Your task to perform on an android device: toggle javascript in the chrome app Image 0: 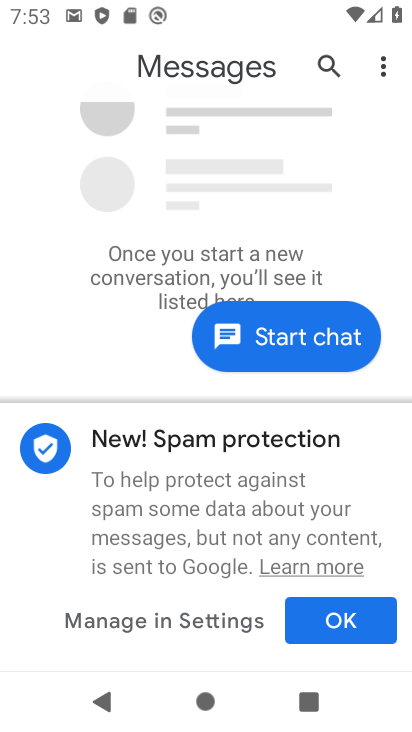
Step 0: press home button
Your task to perform on an android device: toggle javascript in the chrome app Image 1: 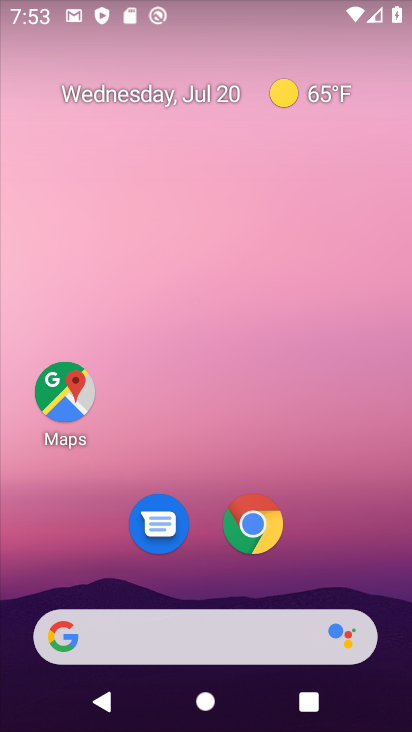
Step 1: click (242, 549)
Your task to perform on an android device: toggle javascript in the chrome app Image 2: 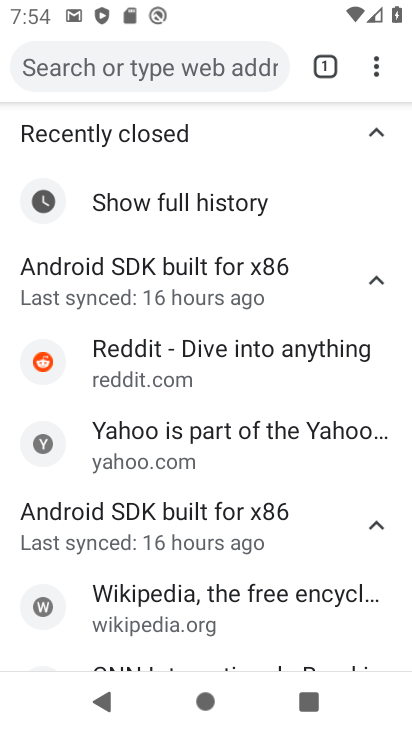
Step 2: click (374, 67)
Your task to perform on an android device: toggle javascript in the chrome app Image 3: 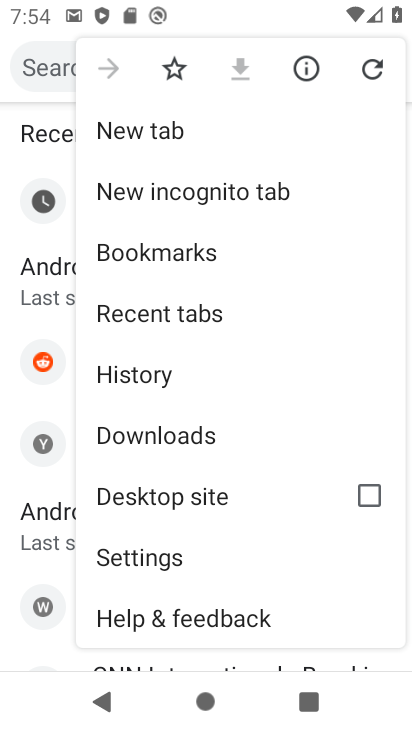
Step 3: click (154, 547)
Your task to perform on an android device: toggle javascript in the chrome app Image 4: 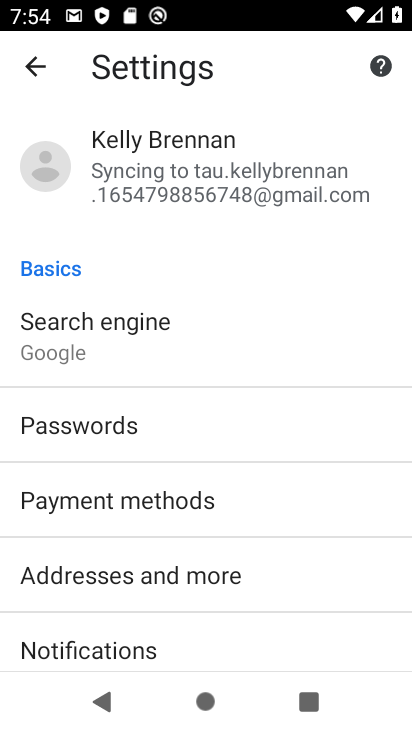
Step 4: drag from (154, 547) to (198, 140)
Your task to perform on an android device: toggle javascript in the chrome app Image 5: 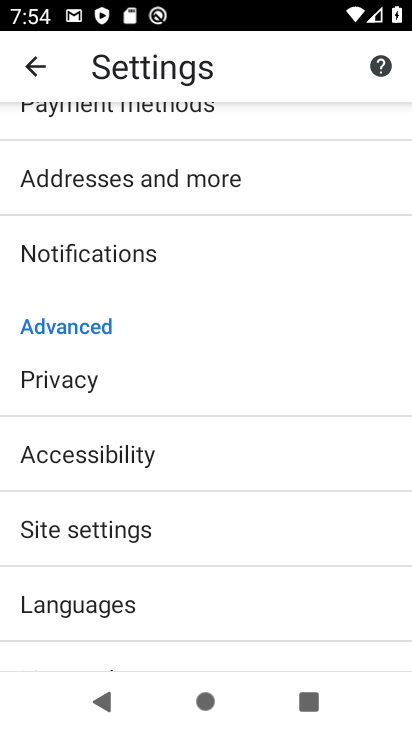
Step 5: click (141, 516)
Your task to perform on an android device: toggle javascript in the chrome app Image 6: 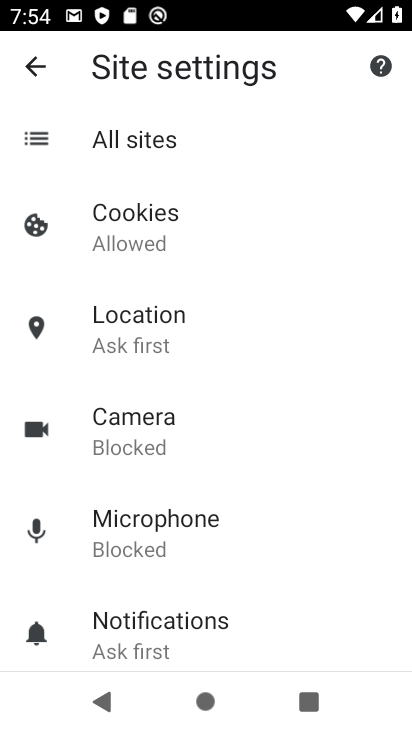
Step 6: drag from (258, 453) to (258, 207)
Your task to perform on an android device: toggle javascript in the chrome app Image 7: 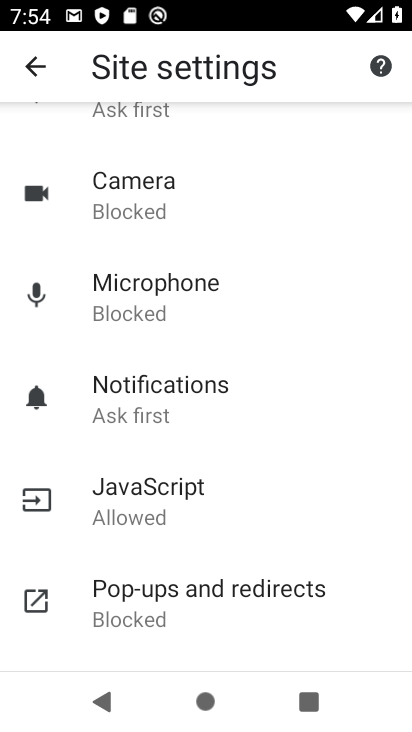
Step 7: click (173, 479)
Your task to perform on an android device: toggle javascript in the chrome app Image 8: 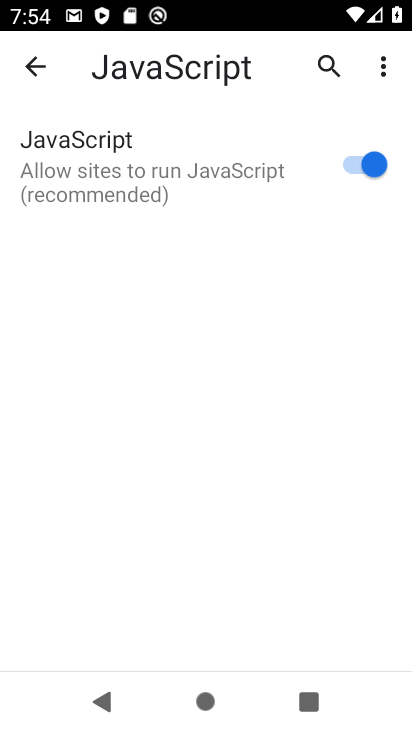
Step 8: click (359, 153)
Your task to perform on an android device: toggle javascript in the chrome app Image 9: 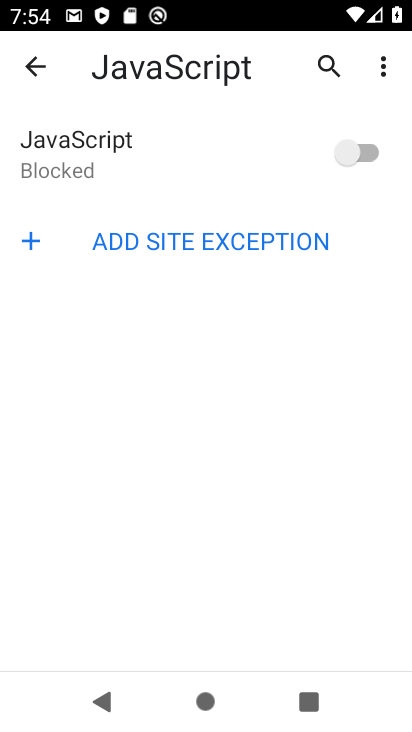
Step 9: task complete